Your task to perform on an android device: turn off sleep mode Image 0: 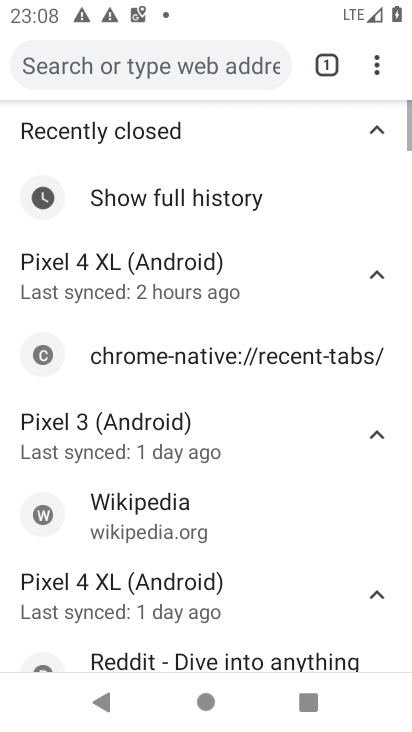
Step 0: click (78, 401)
Your task to perform on an android device: turn off sleep mode Image 1: 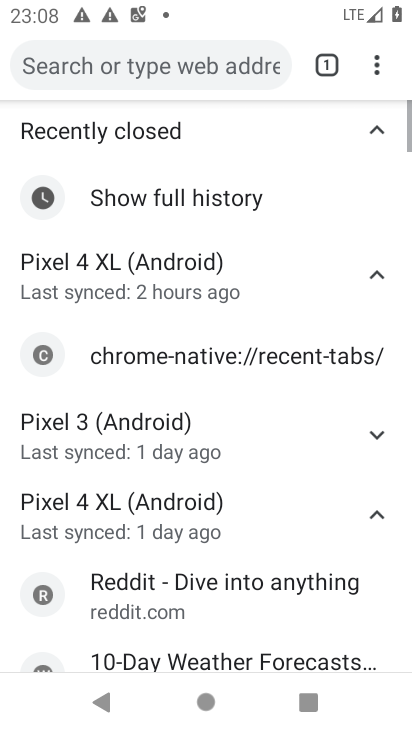
Step 1: press back button
Your task to perform on an android device: turn off sleep mode Image 2: 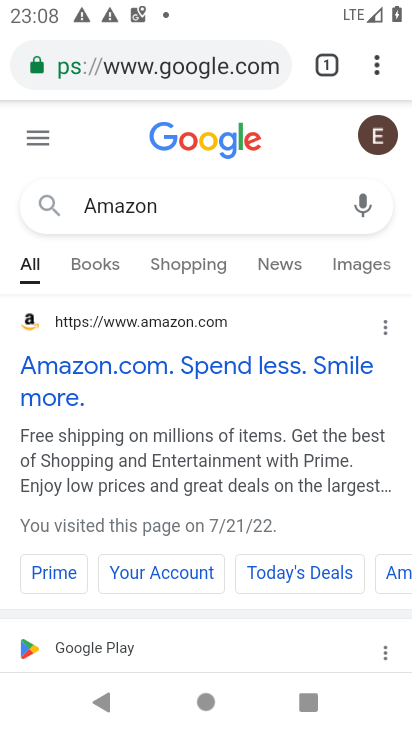
Step 2: press back button
Your task to perform on an android device: turn off sleep mode Image 3: 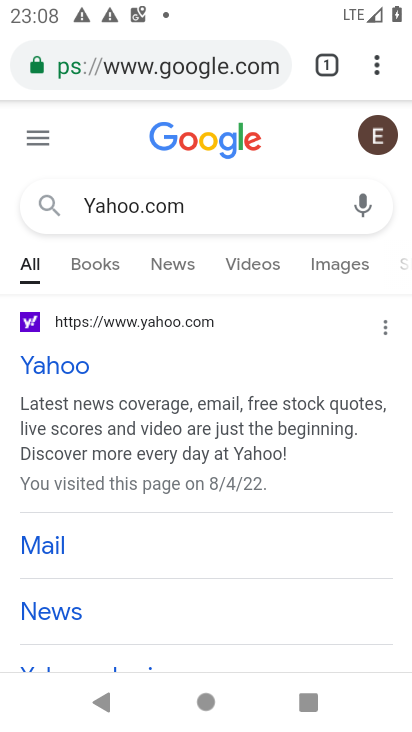
Step 3: press home button
Your task to perform on an android device: turn off sleep mode Image 4: 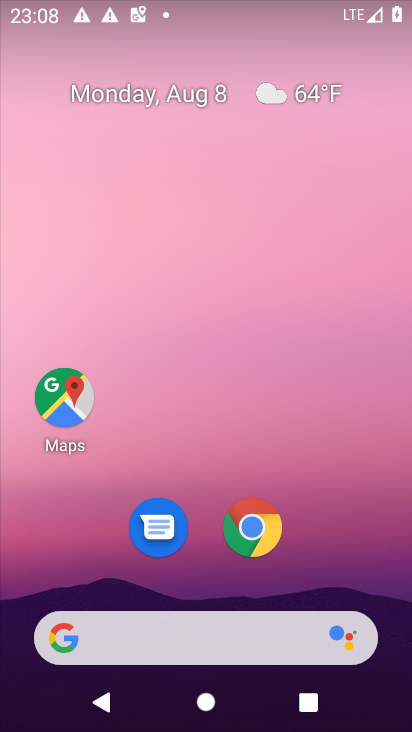
Step 4: drag from (393, 712) to (278, 190)
Your task to perform on an android device: turn off sleep mode Image 5: 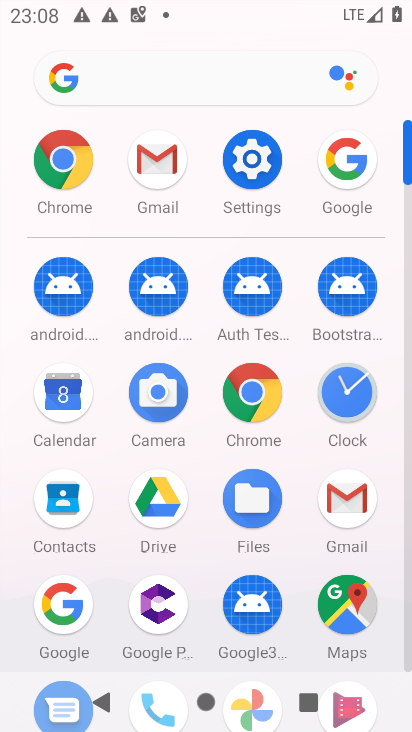
Step 5: click (262, 165)
Your task to perform on an android device: turn off sleep mode Image 6: 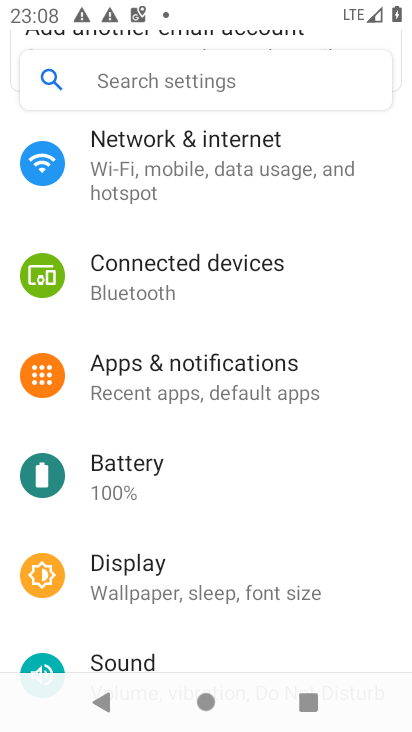
Step 6: click (144, 571)
Your task to perform on an android device: turn off sleep mode Image 7: 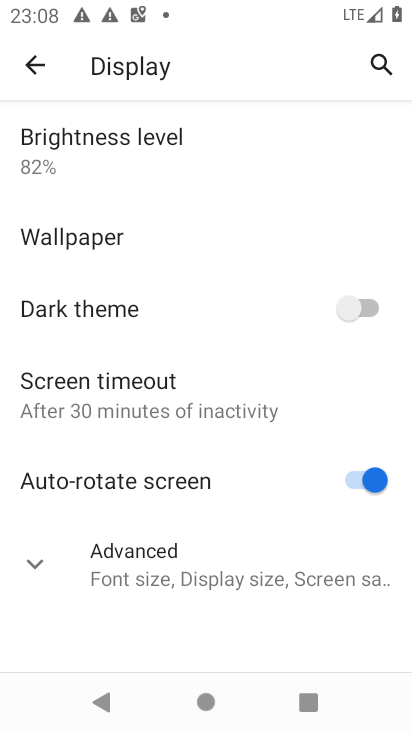
Step 7: click (44, 563)
Your task to perform on an android device: turn off sleep mode Image 8: 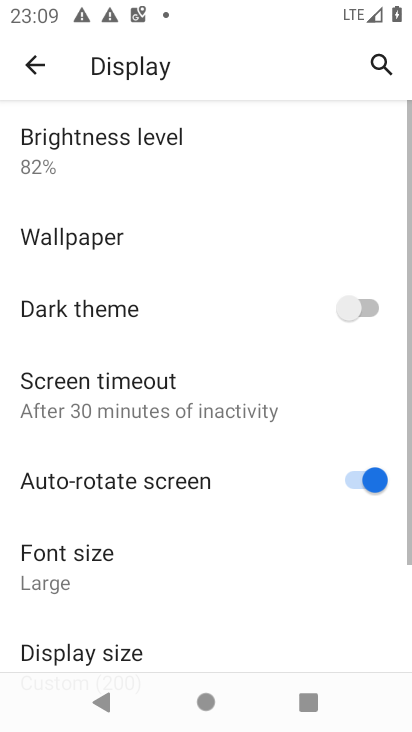
Step 8: click (80, 393)
Your task to perform on an android device: turn off sleep mode Image 9: 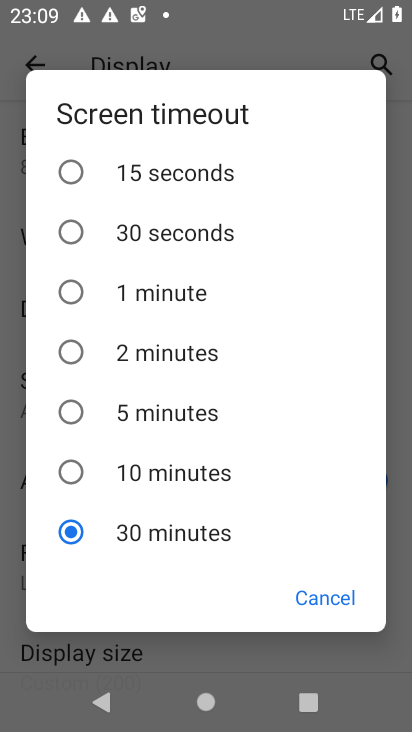
Step 9: task complete